Your task to perform on an android device: Toggle the flashlight Image 0: 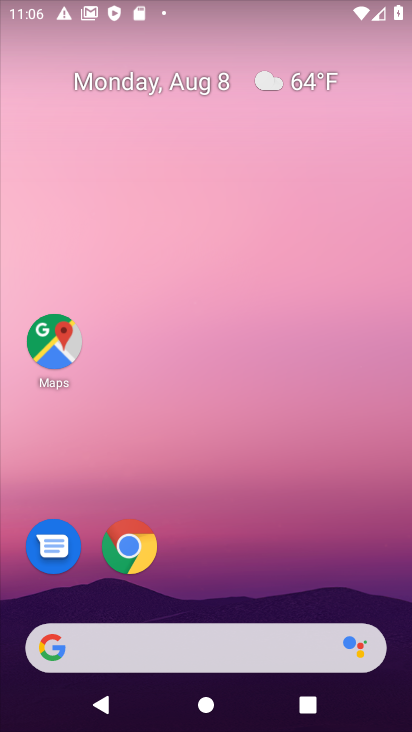
Step 0: press home button
Your task to perform on an android device: Toggle the flashlight Image 1: 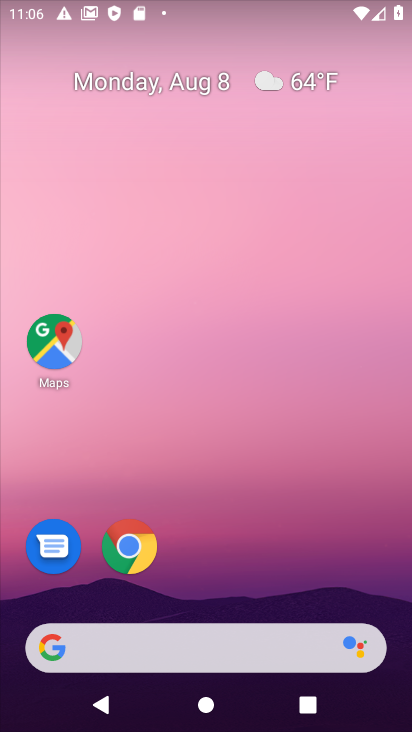
Step 1: drag from (215, 596) to (194, 39)
Your task to perform on an android device: Toggle the flashlight Image 2: 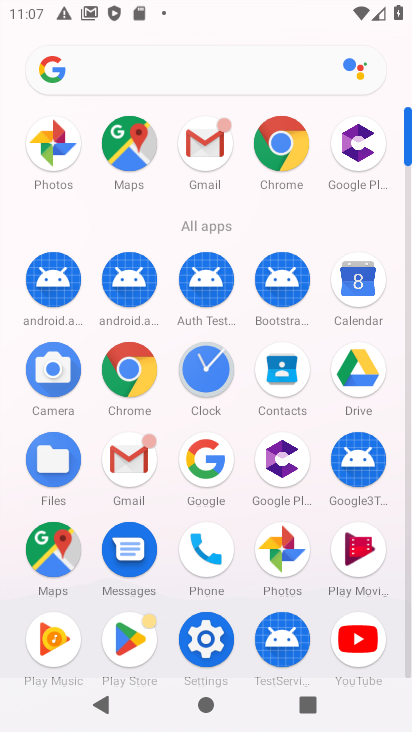
Step 2: click (203, 633)
Your task to perform on an android device: Toggle the flashlight Image 3: 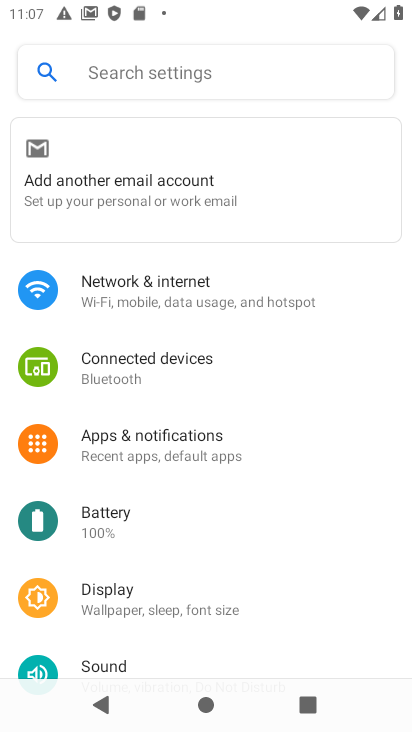
Step 3: click (106, 69)
Your task to perform on an android device: Toggle the flashlight Image 4: 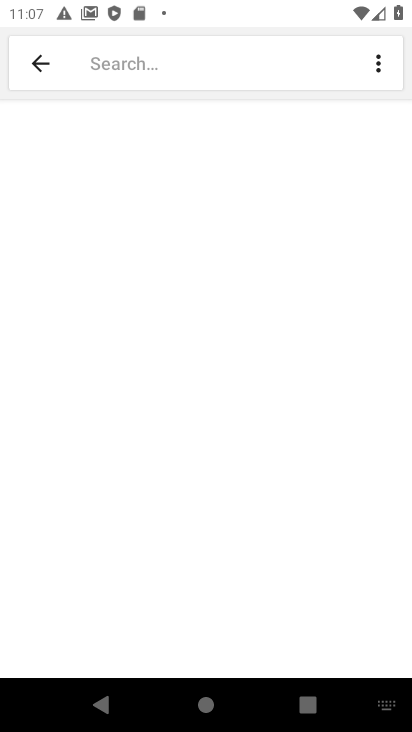
Step 4: type "flashlight"
Your task to perform on an android device: Toggle the flashlight Image 5: 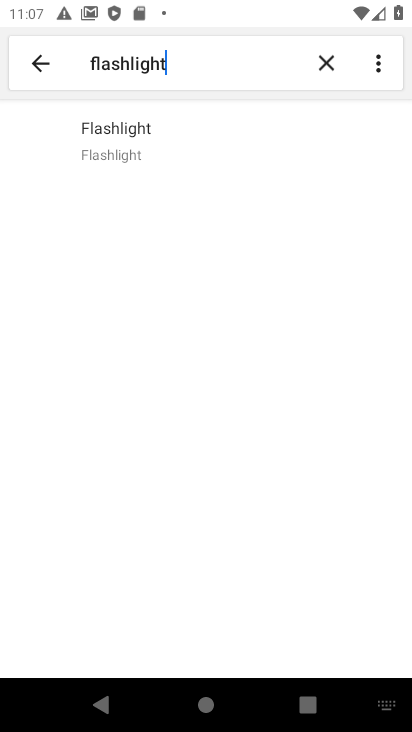
Step 5: click (164, 144)
Your task to perform on an android device: Toggle the flashlight Image 6: 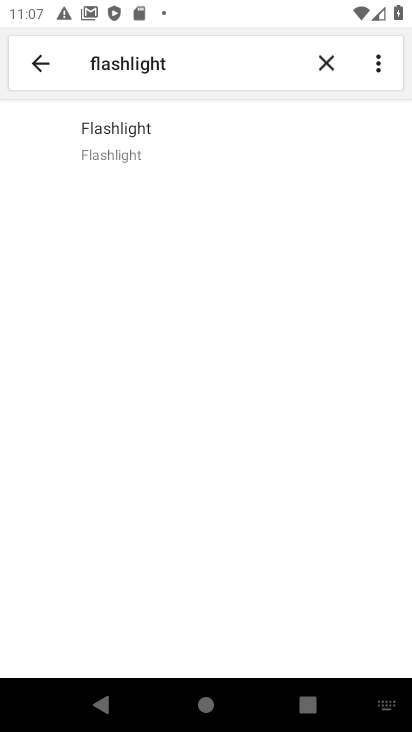
Step 6: click (156, 140)
Your task to perform on an android device: Toggle the flashlight Image 7: 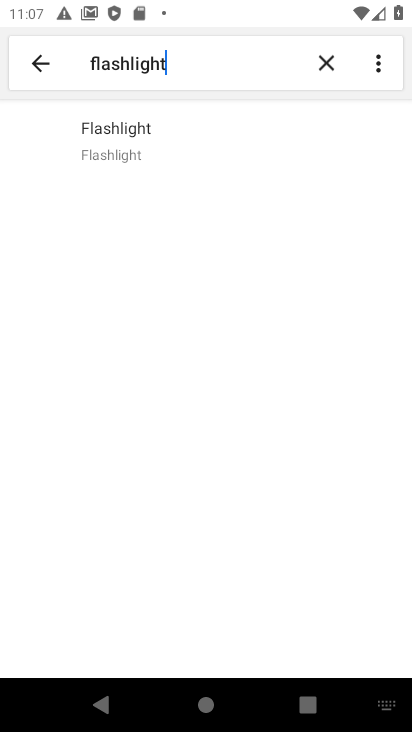
Step 7: task complete